Your task to perform on an android device: check data usage Image 0: 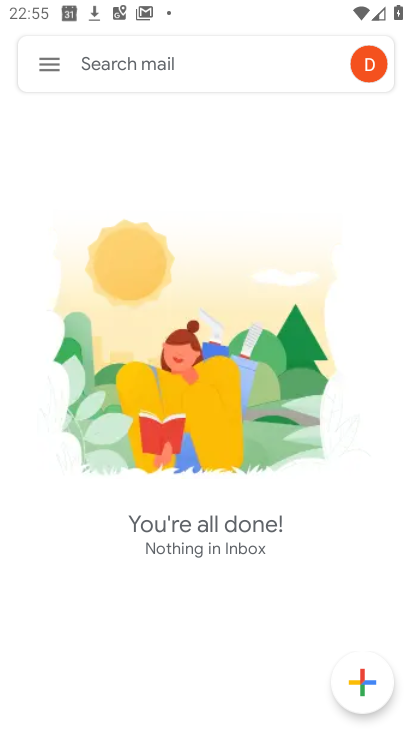
Step 0: press home button
Your task to perform on an android device: check data usage Image 1: 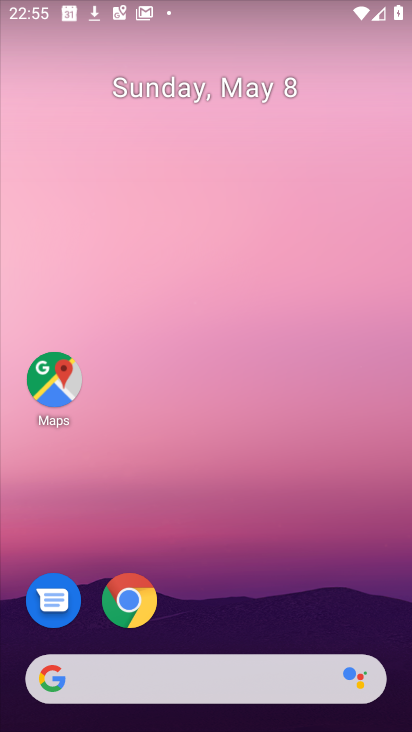
Step 1: drag from (305, 694) to (253, 123)
Your task to perform on an android device: check data usage Image 2: 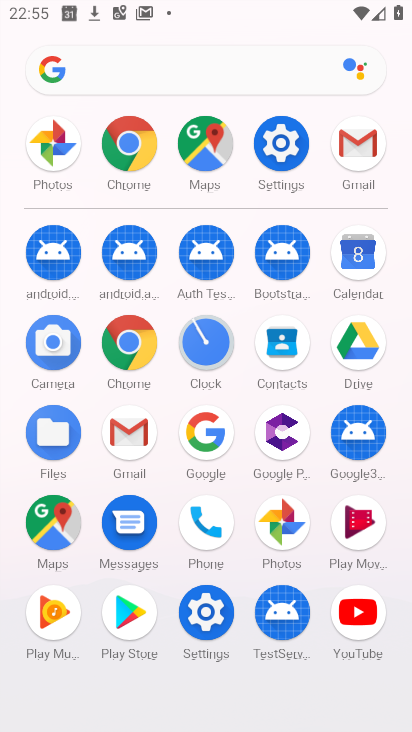
Step 2: click (277, 167)
Your task to perform on an android device: check data usage Image 3: 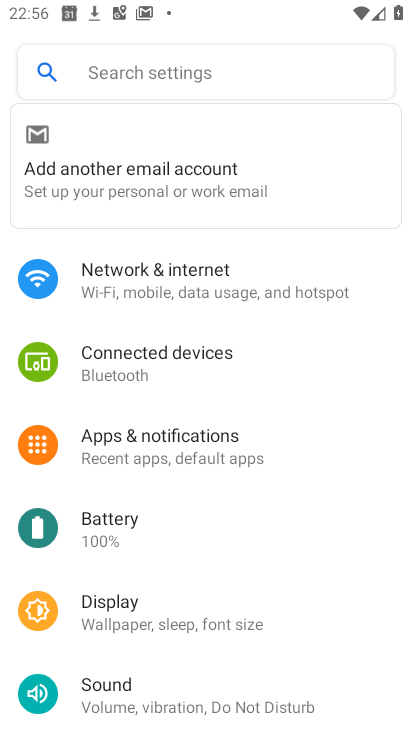
Step 3: click (152, 87)
Your task to perform on an android device: check data usage Image 4: 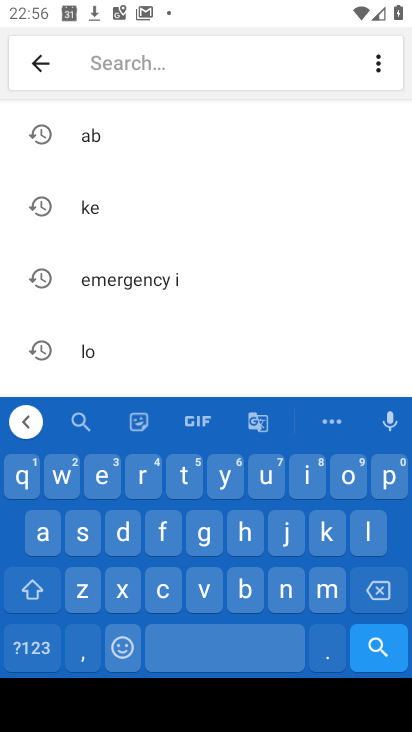
Step 4: click (119, 537)
Your task to perform on an android device: check data usage Image 5: 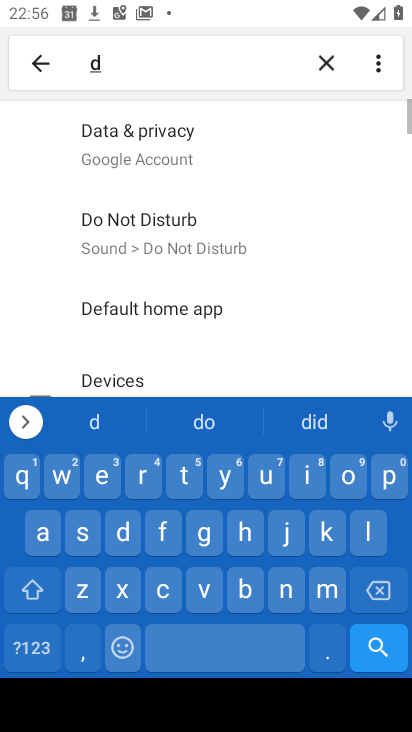
Step 5: click (33, 543)
Your task to perform on an android device: check data usage Image 6: 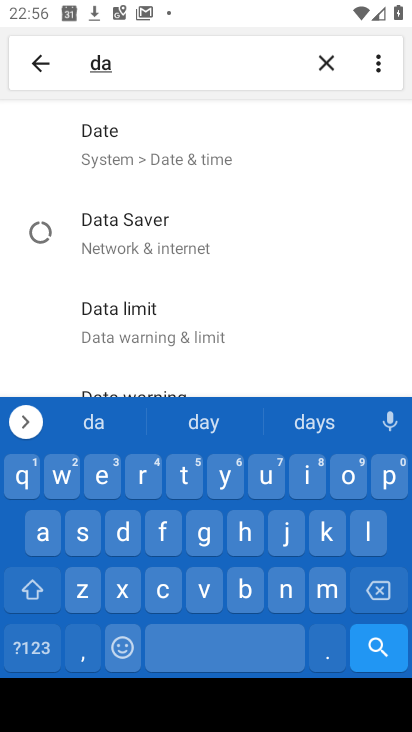
Step 6: click (188, 484)
Your task to perform on an android device: check data usage Image 7: 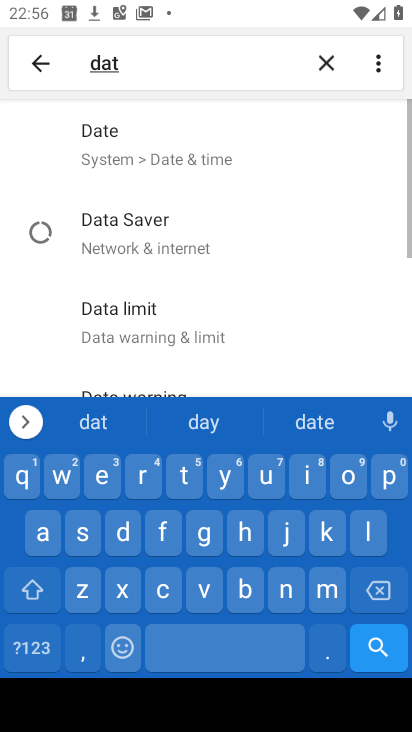
Step 7: click (40, 538)
Your task to perform on an android device: check data usage Image 8: 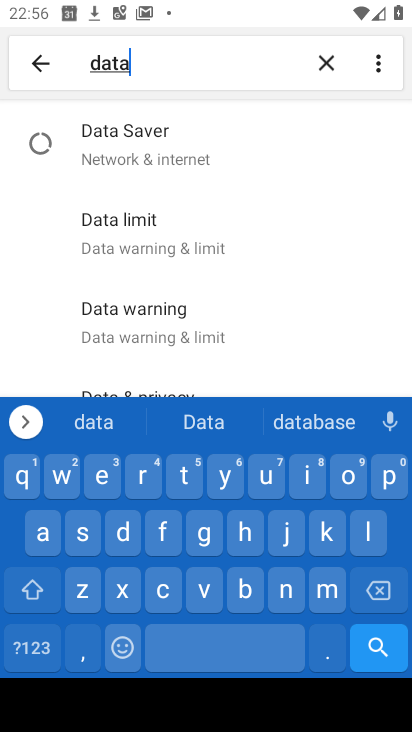
Step 8: click (199, 659)
Your task to perform on an android device: check data usage Image 9: 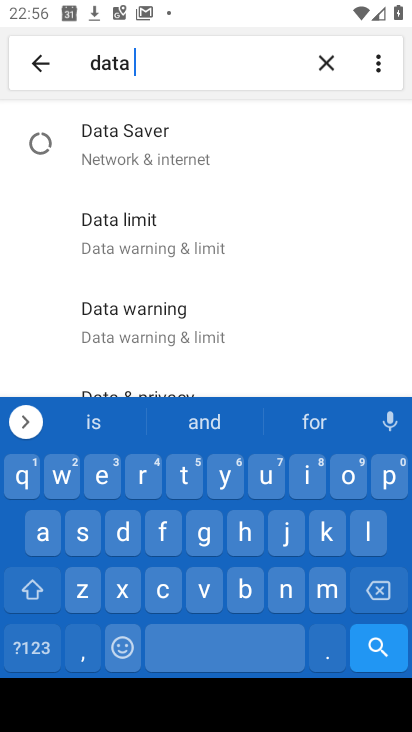
Step 9: click (264, 480)
Your task to perform on an android device: check data usage Image 10: 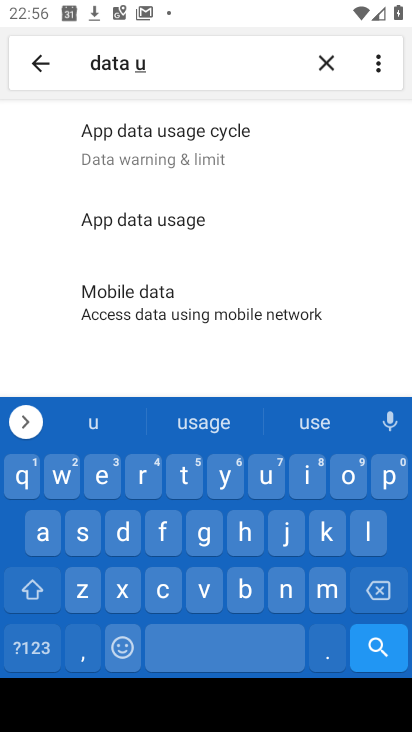
Step 10: click (83, 538)
Your task to perform on an android device: check data usage Image 11: 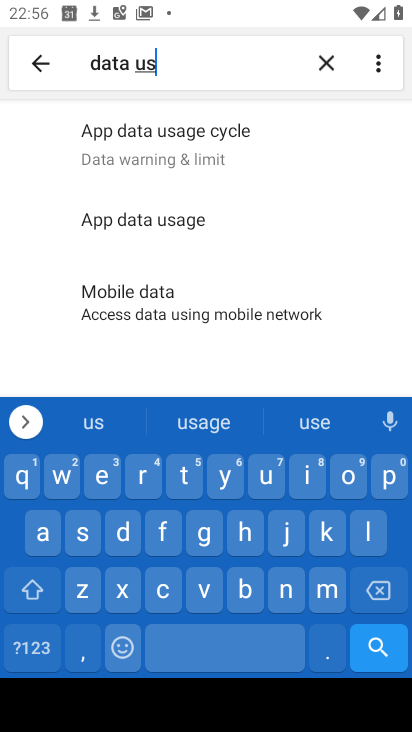
Step 11: drag from (156, 310) to (187, 186)
Your task to perform on an android device: check data usage Image 12: 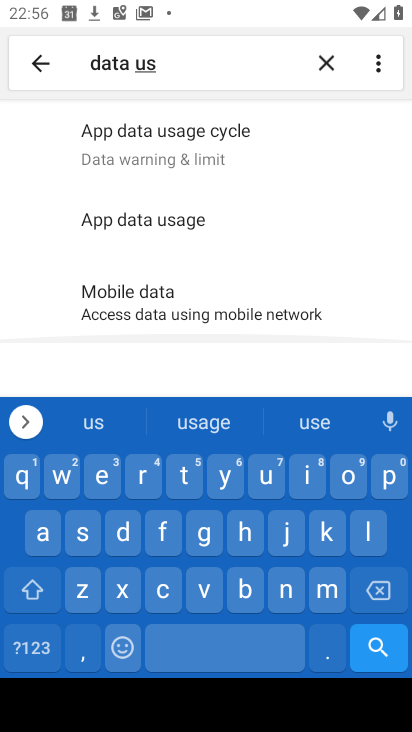
Step 12: click (156, 231)
Your task to perform on an android device: check data usage Image 13: 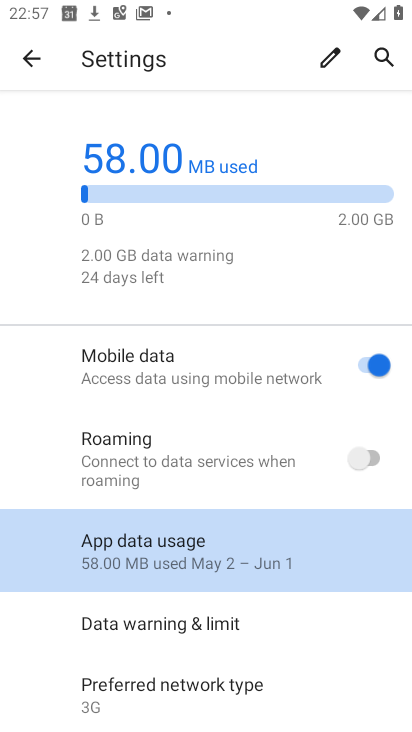
Step 13: click (235, 536)
Your task to perform on an android device: check data usage Image 14: 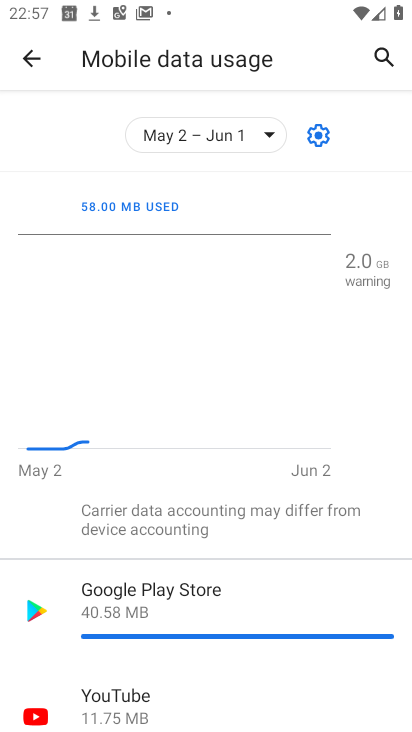
Step 14: task complete